Your task to perform on an android device: Check the news Image 0: 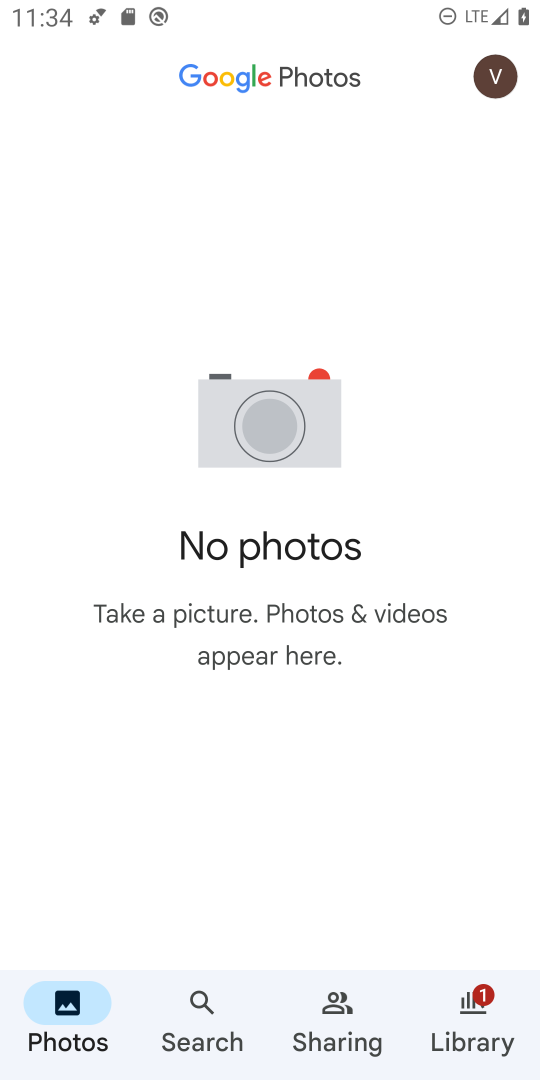
Step 0: press home button
Your task to perform on an android device: Check the news Image 1: 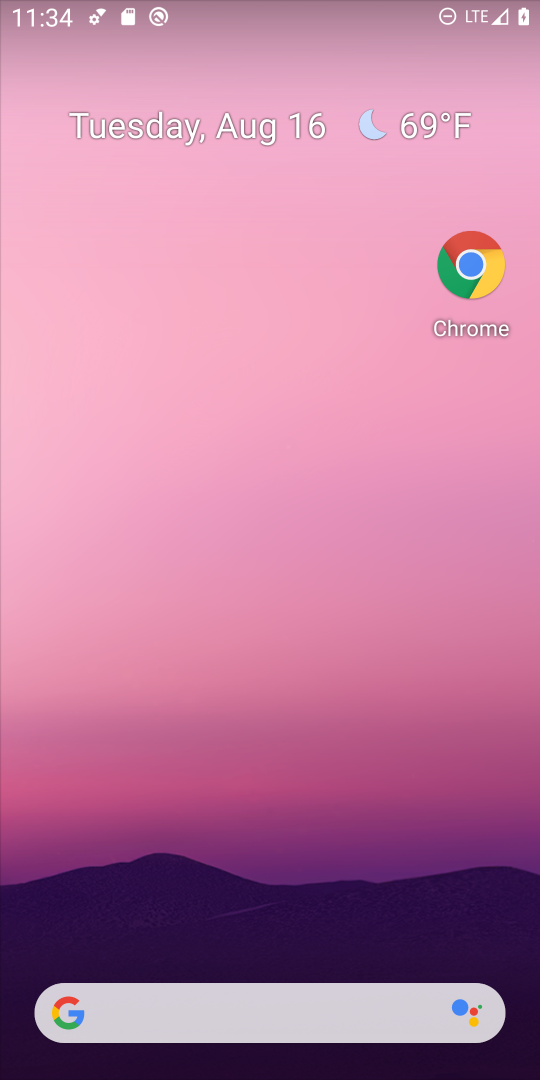
Step 1: drag from (298, 908) to (428, 71)
Your task to perform on an android device: Check the news Image 2: 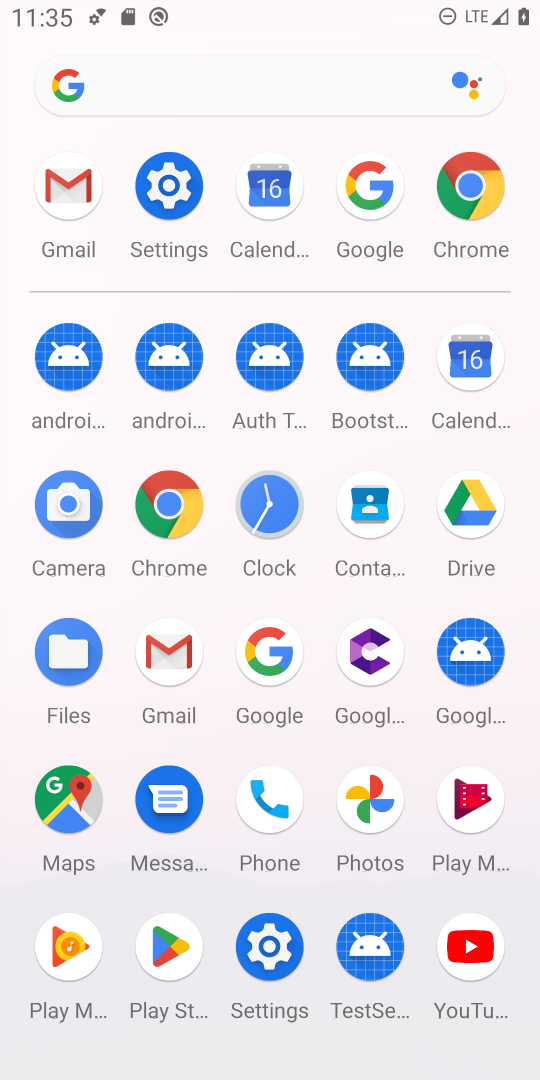
Step 2: click (275, 679)
Your task to perform on an android device: Check the news Image 3: 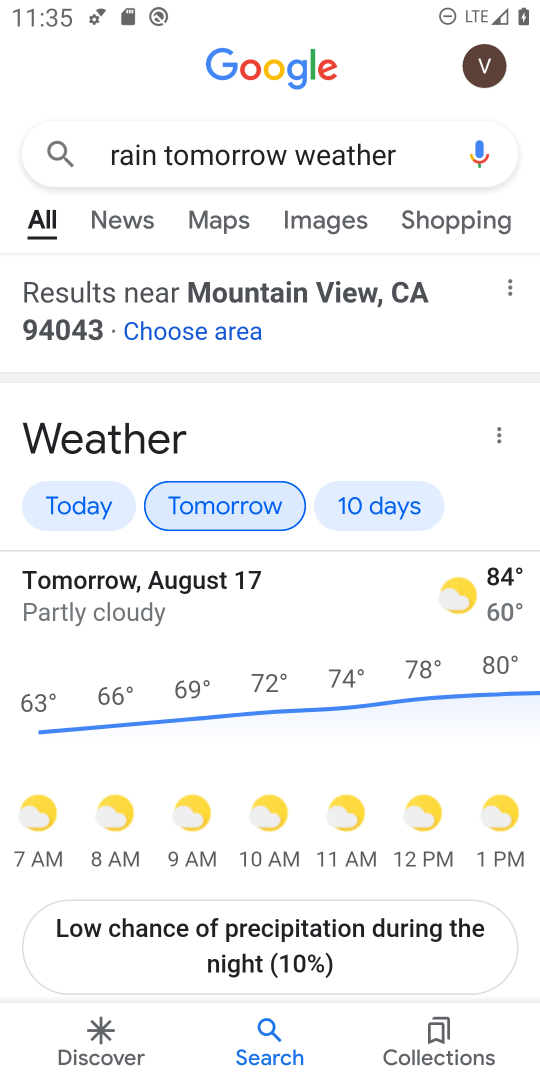
Step 3: click (412, 154)
Your task to perform on an android device: Check the news Image 4: 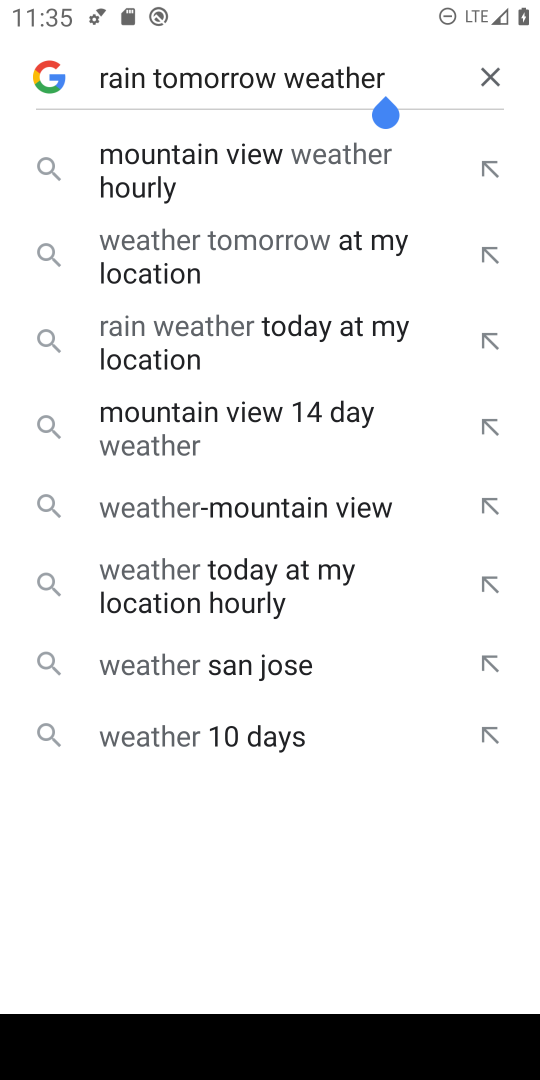
Step 4: click (483, 71)
Your task to perform on an android device: Check the news Image 5: 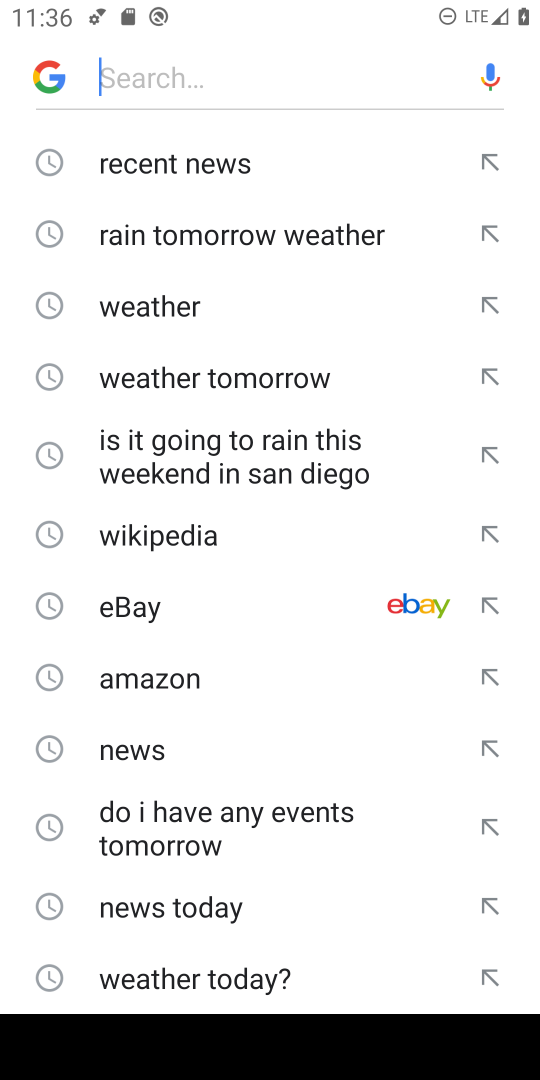
Step 5: click (222, 147)
Your task to perform on an android device: Check the news Image 6: 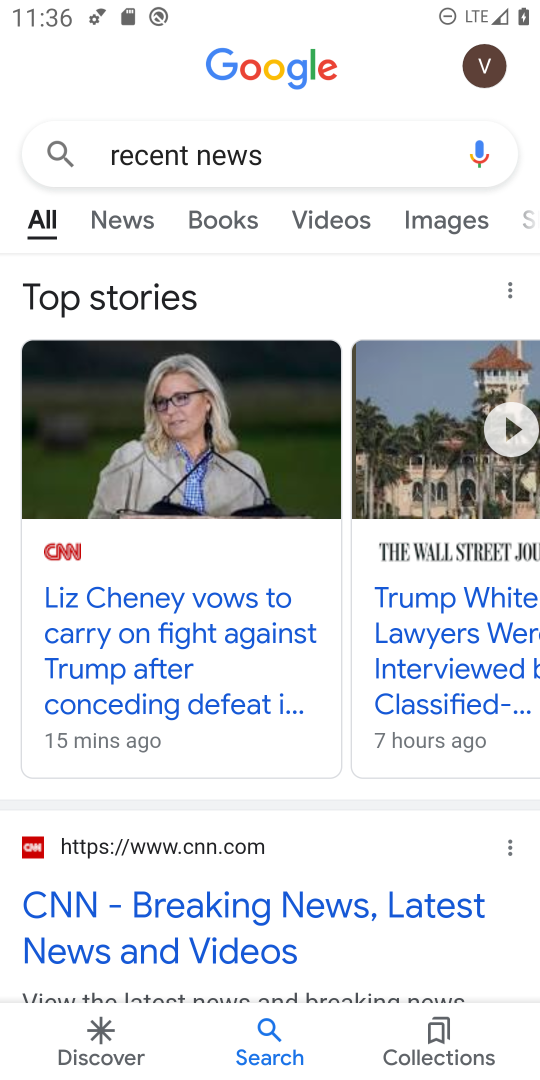
Step 6: task complete